Your task to perform on an android device: toggle notifications settings in the gmail app Image 0: 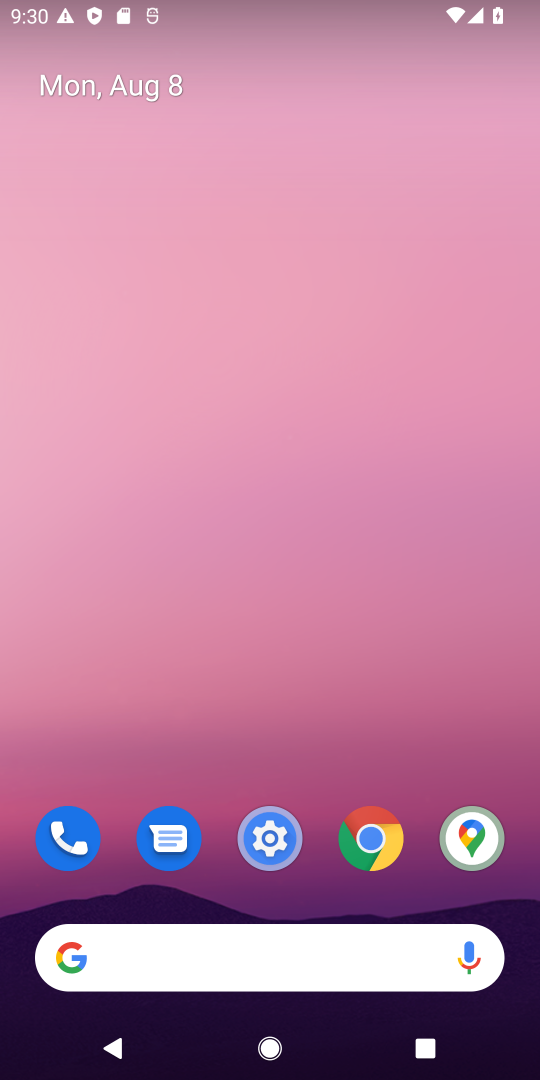
Step 0: press home button
Your task to perform on an android device: toggle notifications settings in the gmail app Image 1: 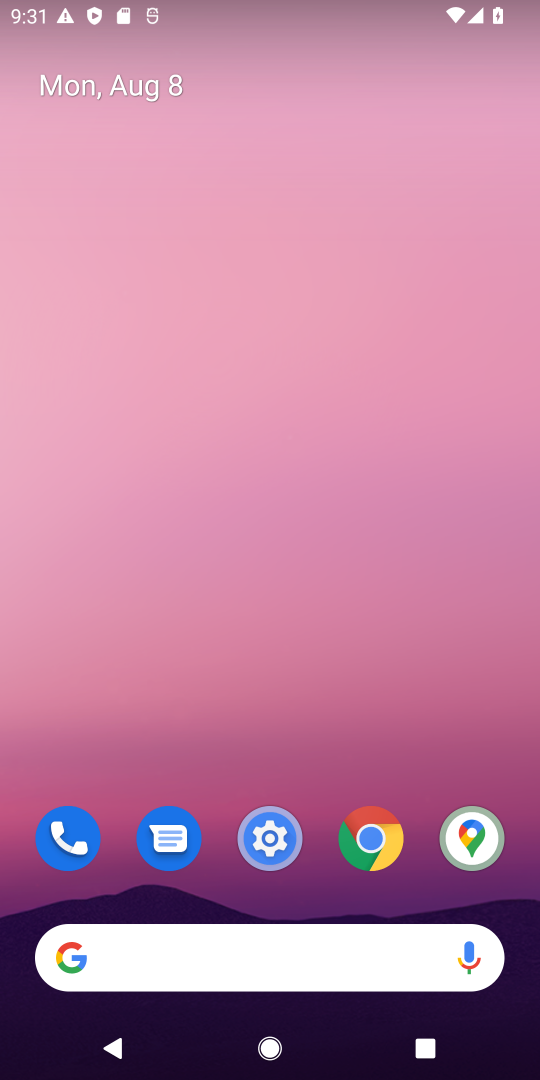
Step 1: drag from (301, 826) to (314, 328)
Your task to perform on an android device: toggle notifications settings in the gmail app Image 2: 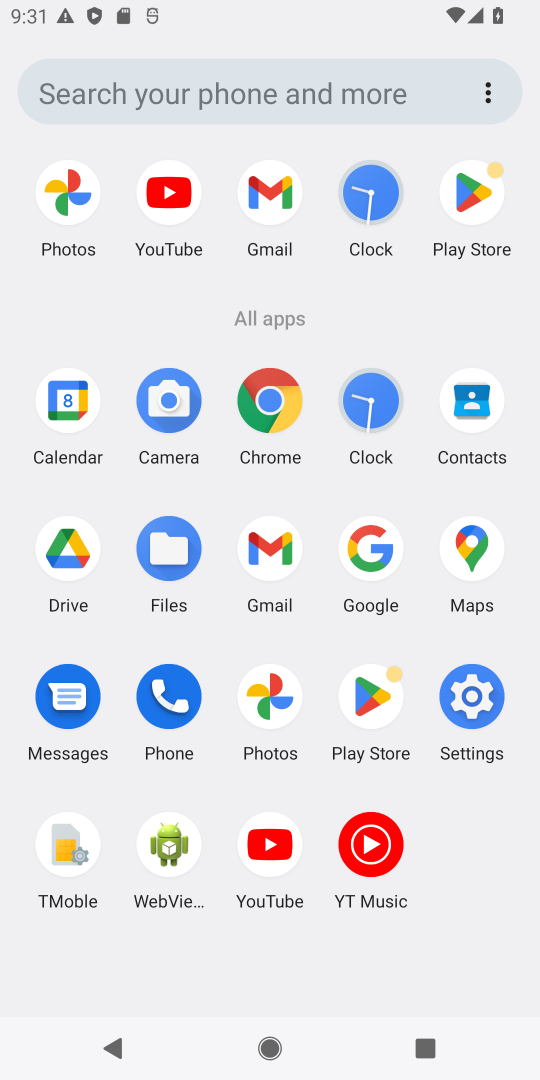
Step 2: click (273, 549)
Your task to perform on an android device: toggle notifications settings in the gmail app Image 3: 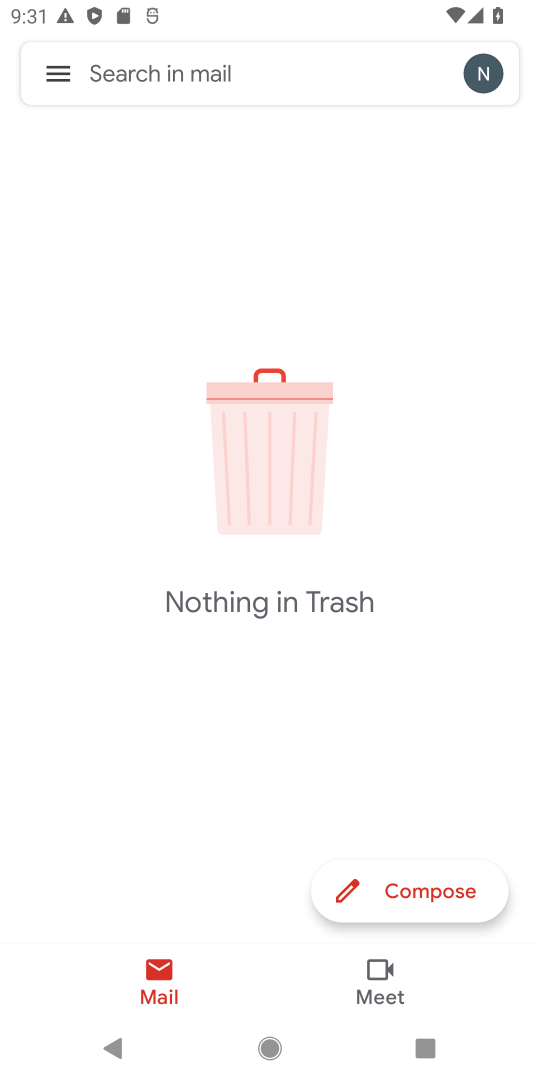
Step 3: click (69, 57)
Your task to perform on an android device: toggle notifications settings in the gmail app Image 4: 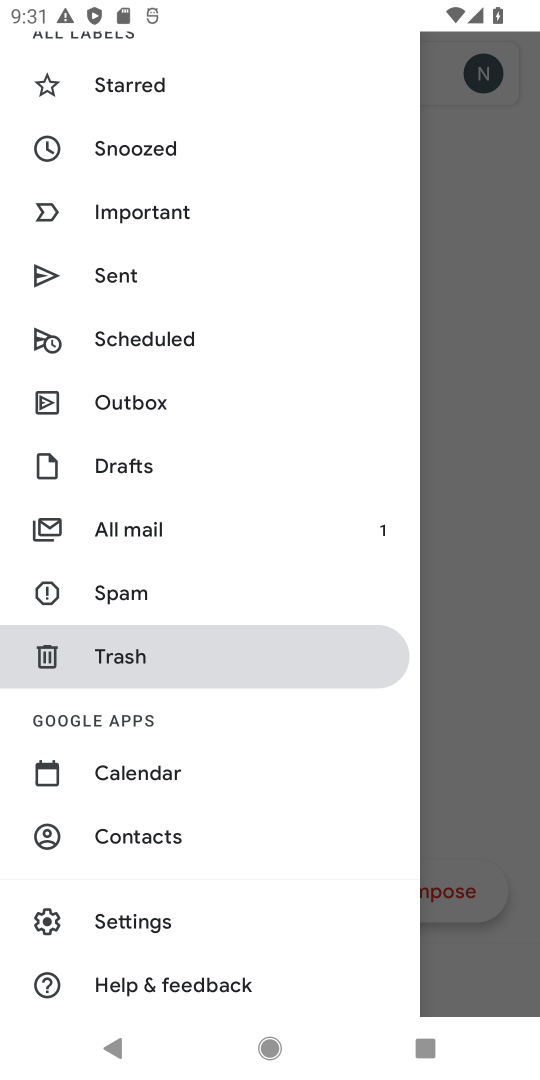
Step 4: click (143, 930)
Your task to perform on an android device: toggle notifications settings in the gmail app Image 5: 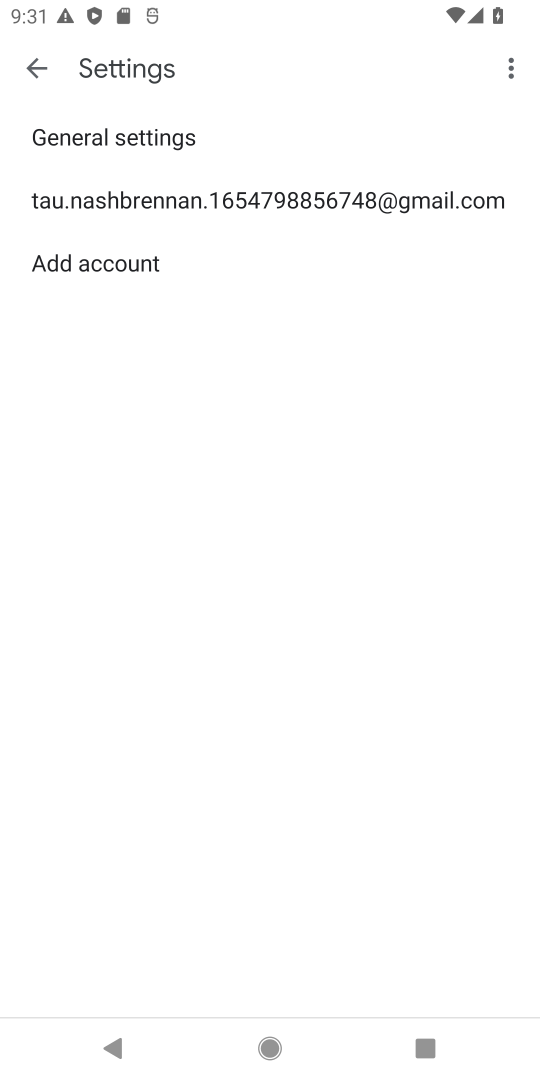
Step 5: click (232, 193)
Your task to perform on an android device: toggle notifications settings in the gmail app Image 6: 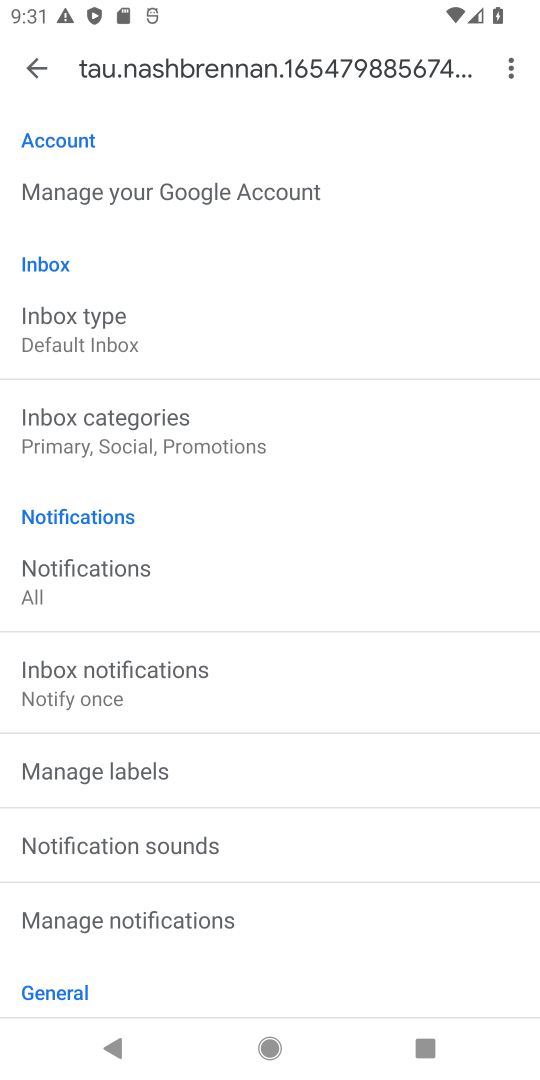
Step 6: click (102, 931)
Your task to perform on an android device: toggle notifications settings in the gmail app Image 7: 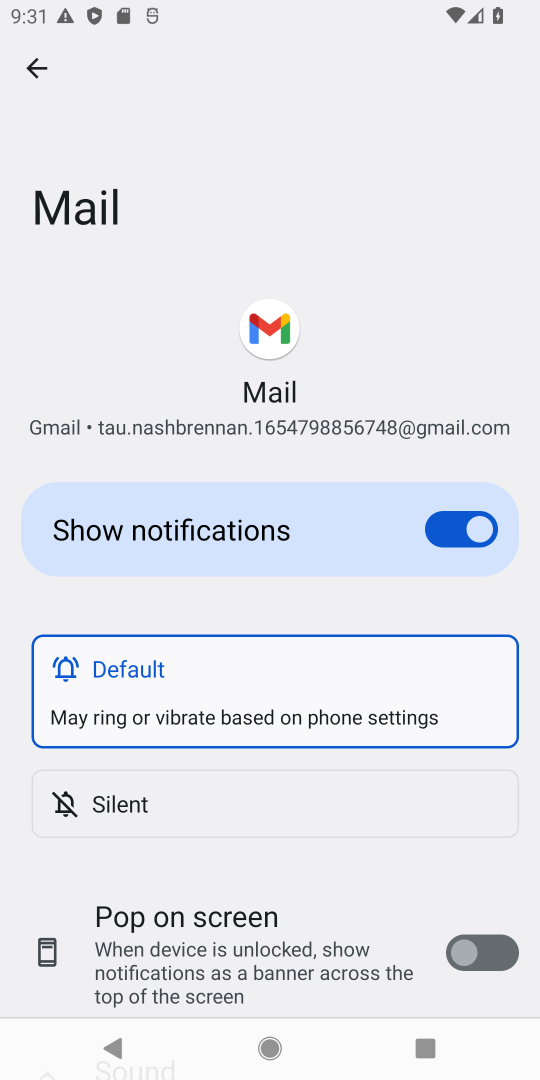
Step 7: click (484, 509)
Your task to perform on an android device: toggle notifications settings in the gmail app Image 8: 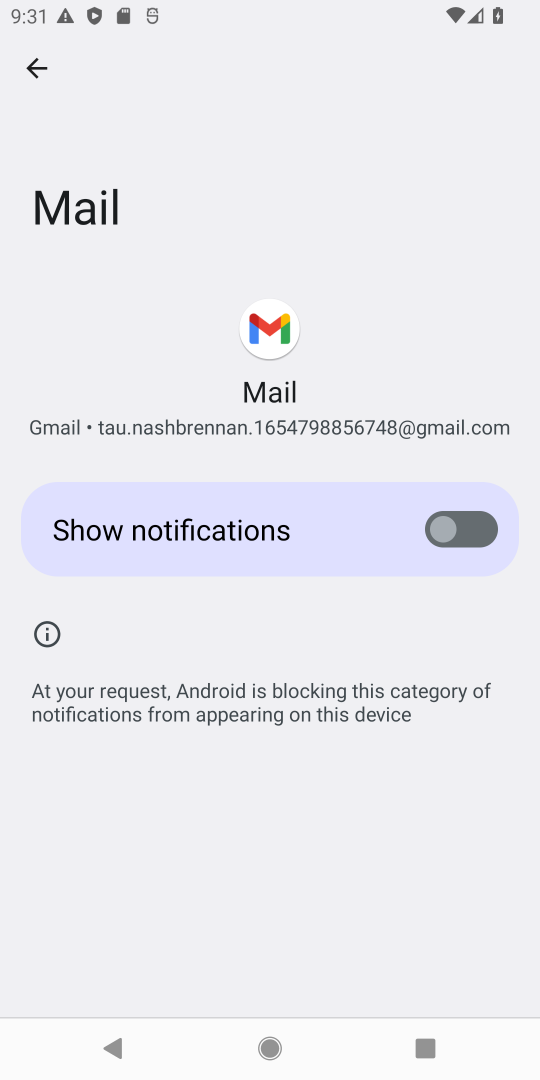
Step 8: task complete